Your task to perform on an android device: Do I have any events today? Image 0: 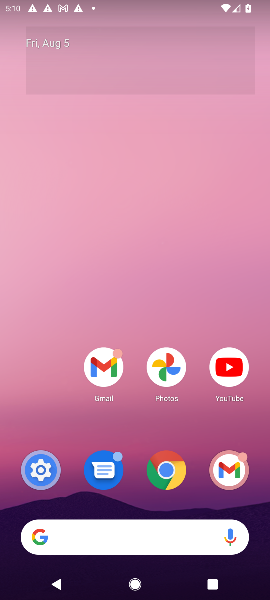
Step 0: drag from (125, 484) to (255, 451)
Your task to perform on an android device: Do I have any events today? Image 1: 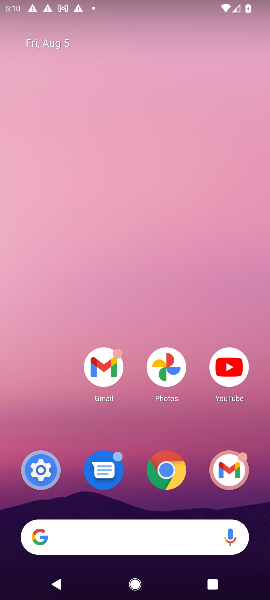
Step 1: drag from (135, 512) to (145, 8)
Your task to perform on an android device: Do I have any events today? Image 2: 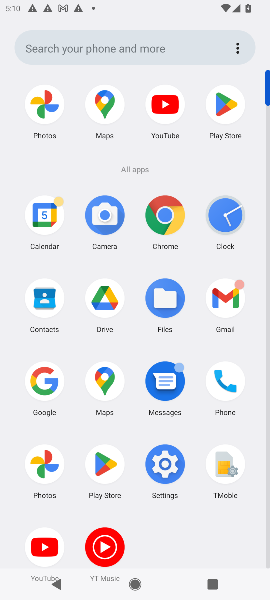
Step 2: click (42, 221)
Your task to perform on an android device: Do I have any events today? Image 3: 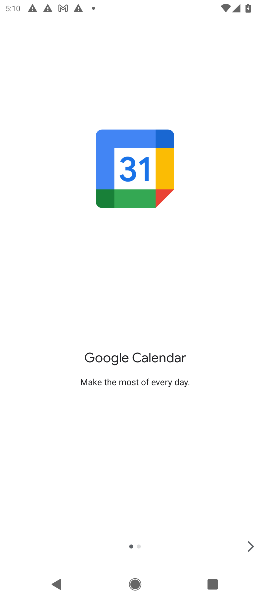
Step 3: click (246, 546)
Your task to perform on an android device: Do I have any events today? Image 4: 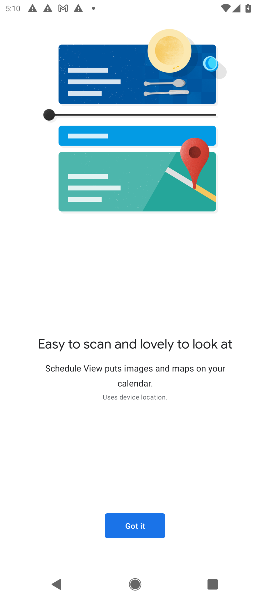
Step 4: click (246, 546)
Your task to perform on an android device: Do I have any events today? Image 5: 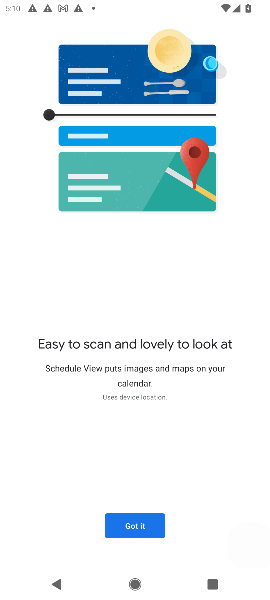
Step 5: click (148, 530)
Your task to perform on an android device: Do I have any events today? Image 6: 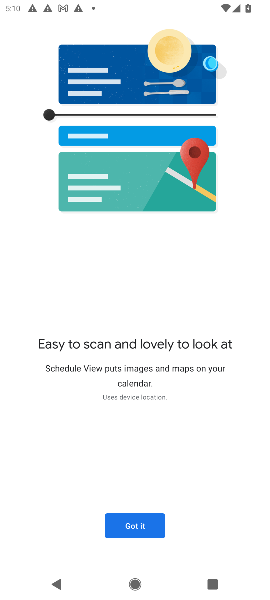
Step 6: click (148, 524)
Your task to perform on an android device: Do I have any events today? Image 7: 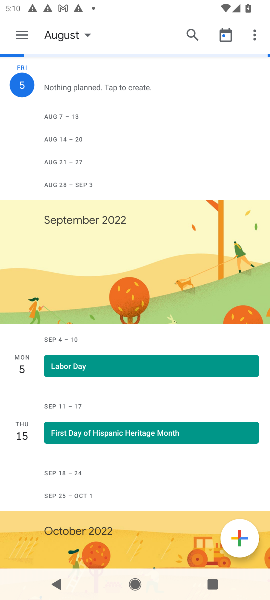
Step 7: click (16, 22)
Your task to perform on an android device: Do I have any events today? Image 8: 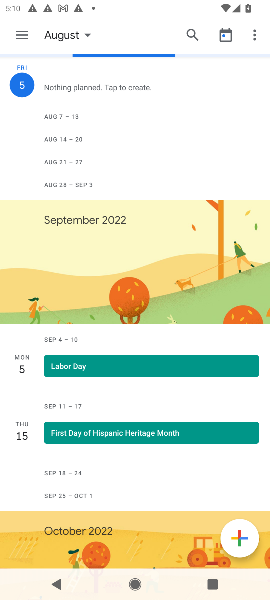
Step 8: click (29, 82)
Your task to perform on an android device: Do I have any events today? Image 9: 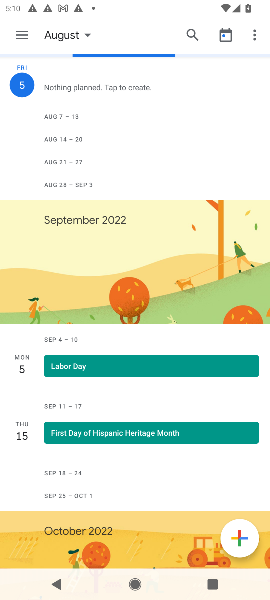
Step 9: click (25, 82)
Your task to perform on an android device: Do I have any events today? Image 10: 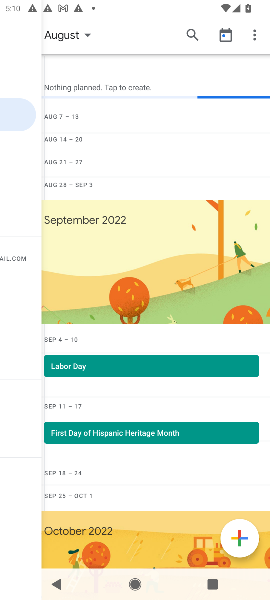
Step 10: task complete